Your task to perform on an android device: set the timer Image 0: 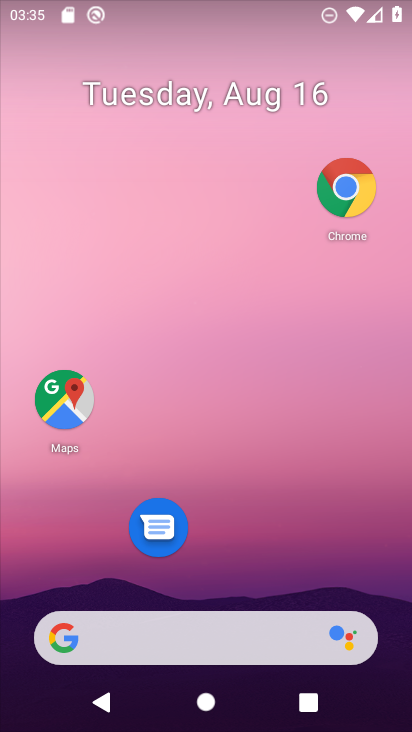
Step 0: press home button
Your task to perform on an android device: set the timer Image 1: 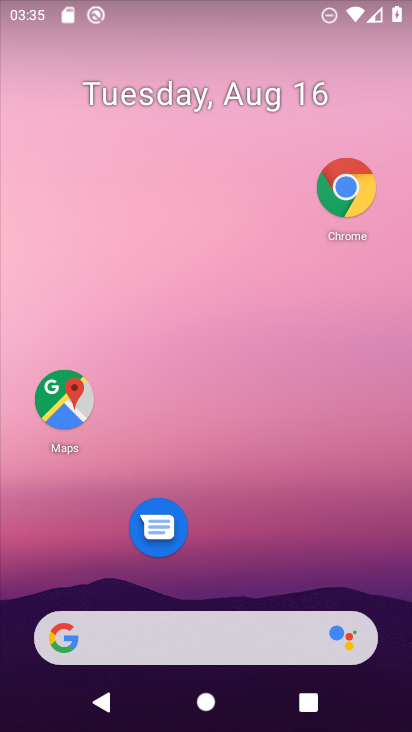
Step 1: drag from (198, 581) to (264, 109)
Your task to perform on an android device: set the timer Image 2: 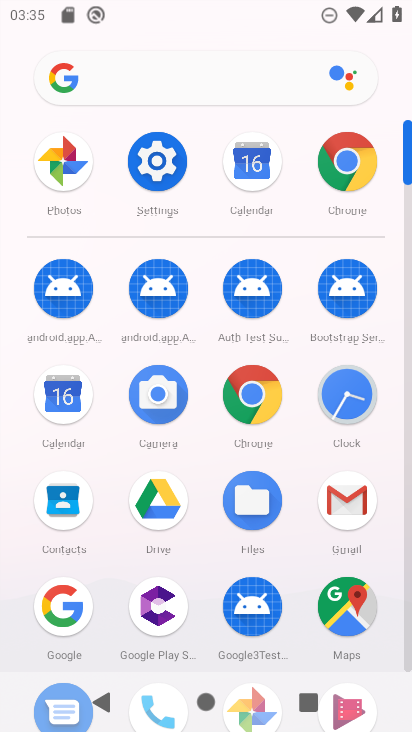
Step 2: click (350, 387)
Your task to perform on an android device: set the timer Image 3: 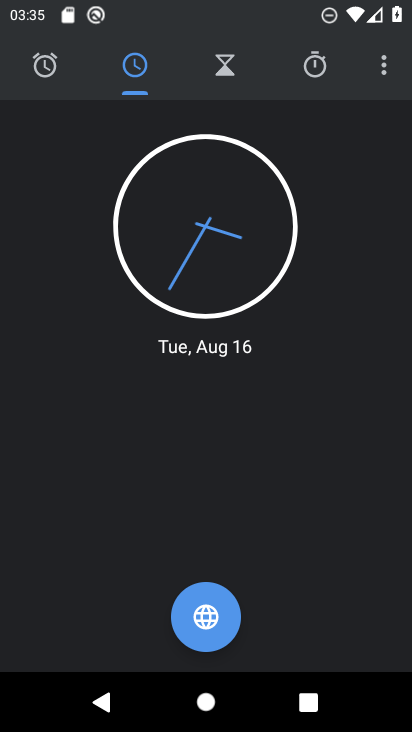
Step 3: click (223, 66)
Your task to perform on an android device: set the timer Image 4: 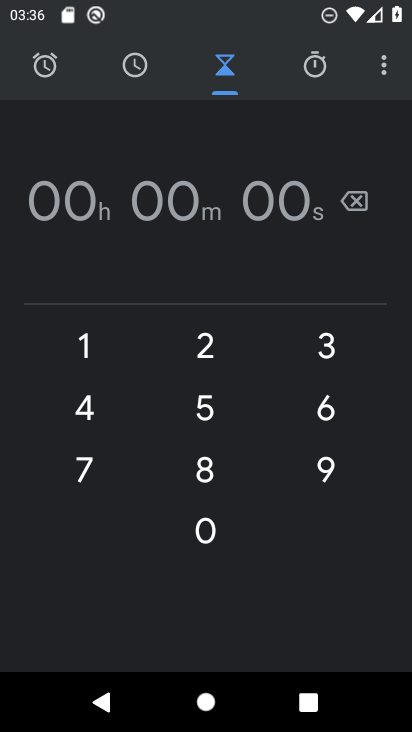
Step 4: click (205, 335)
Your task to perform on an android device: set the timer Image 5: 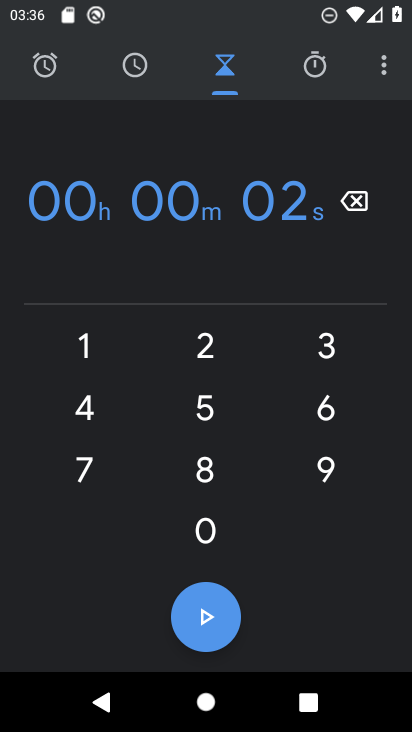
Step 5: click (209, 534)
Your task to perform on an android device: set the timer Image 6: 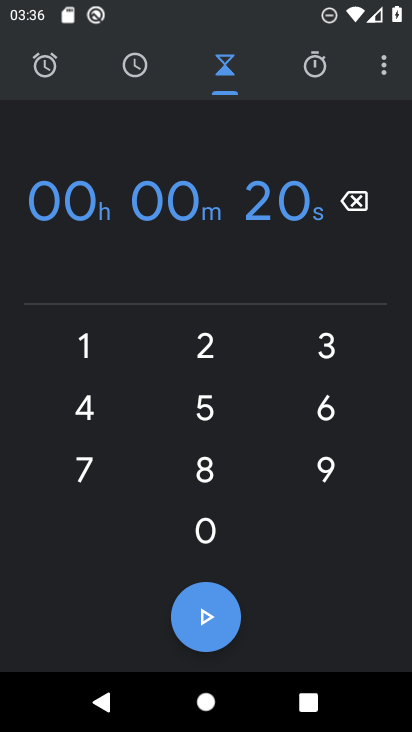
Step 6: click (209, 530)
Your task to perform on an android device: set the timer Image 7: 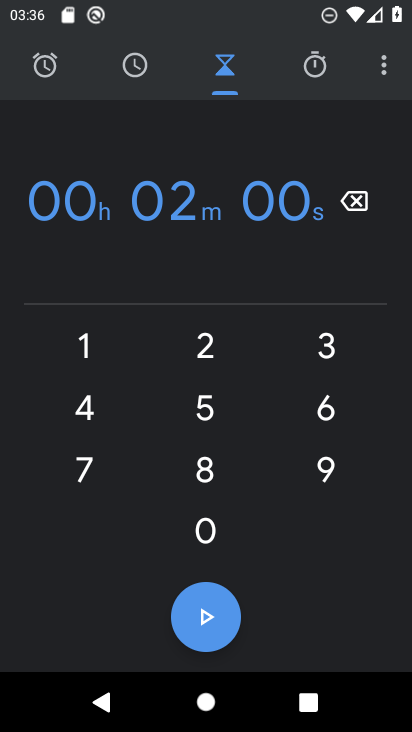
Step 7: click (200, 530)
Your task to perform on an android device: set the timer Image 8: 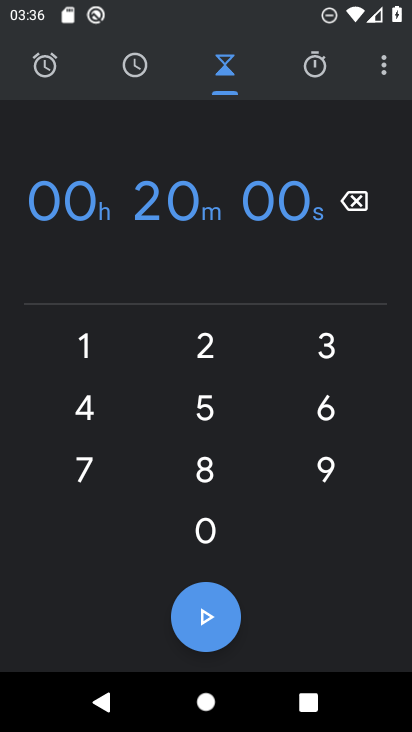
Step 8: click (207, 613)
Your task to perform on an android device: set the timer Image 9: 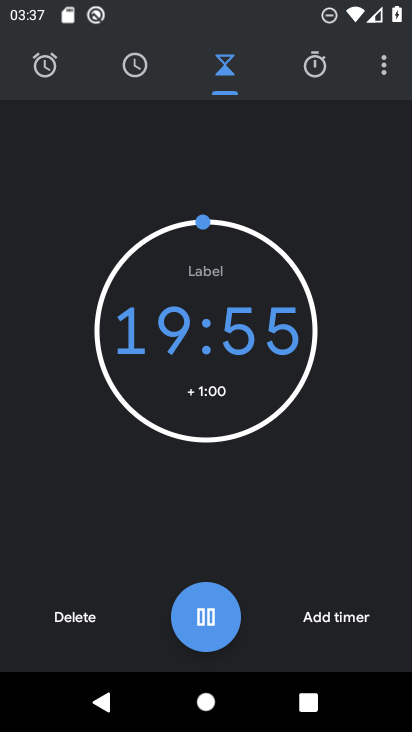
Step 9: task complete